Your task to perform on an android device: Open privacy settings Image 0: 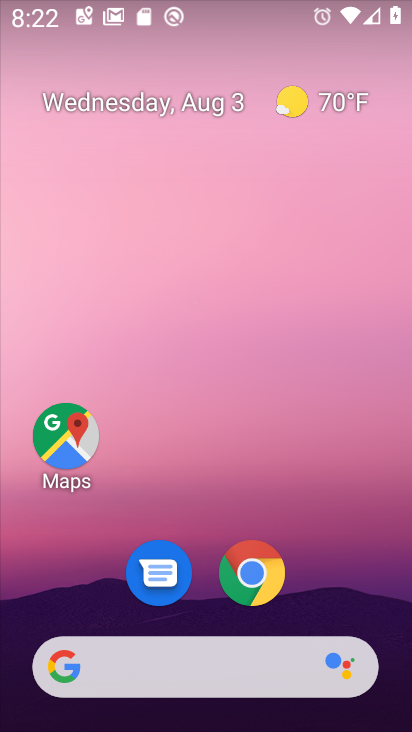
Step 0: drag from (324, 540) to (265, 5)
Your task to perform on an android device: Open privacy settings Image 1: 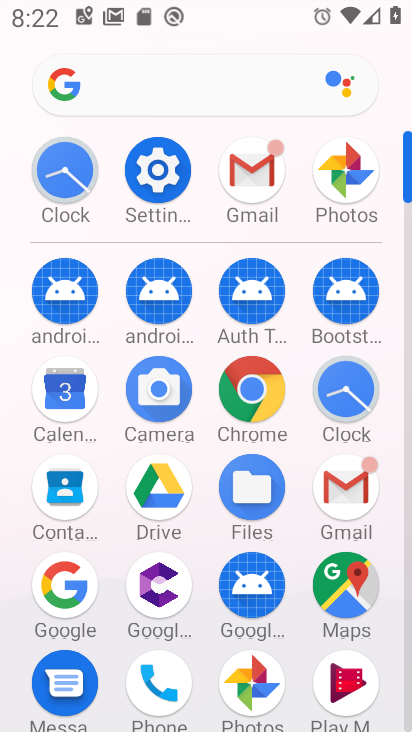
Step 1: click (152, 167)
Your task to perform on an android device: Open privacy settings Image 2: 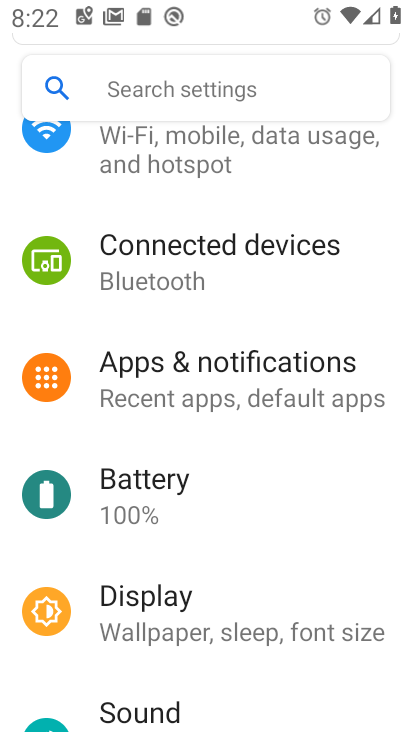
Step 2: drag from (402, 529) to (351, 194)
Your task to perform on an android device: Open privacy settings Image 3: 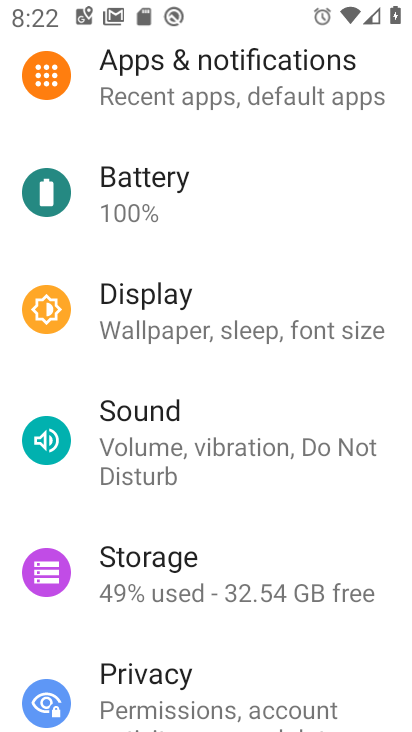
Step 3: click (170, 675)
Your task to perform on an android device: Open privacy settings Image 4: 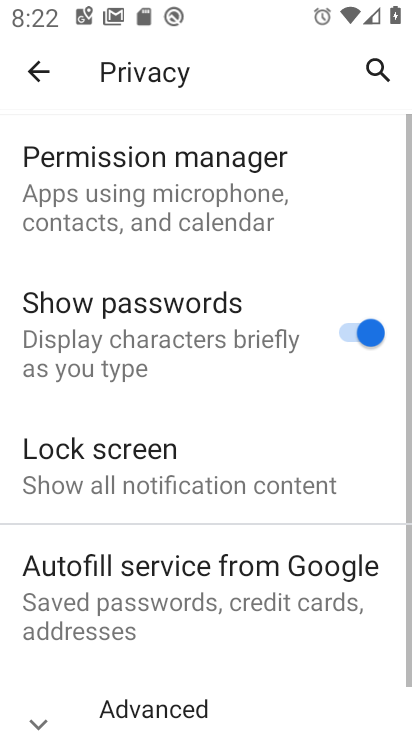
Step 4: task complete